Your task to perform on an android device: Open Google Chrome and click the shortcut for Amazon.com Image 0: 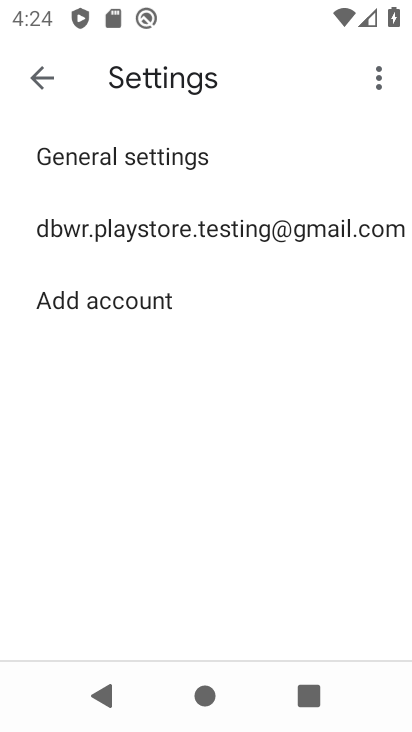
Step 0: press home button
Your task to perform on an android device: Open Google Chrome and click the shortcut for Amazon.com Image 1: 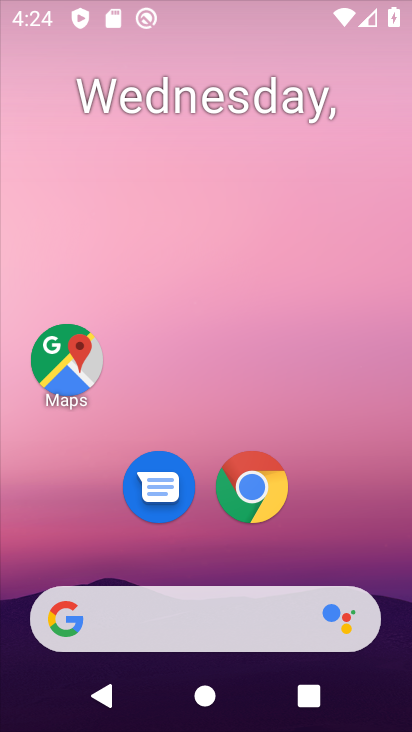
Step 1: drag from (352, 548) to (361, 65)
Your task to perform on an android device: Open Google Chrome and click the shortcut for Amazon.com Image 2: 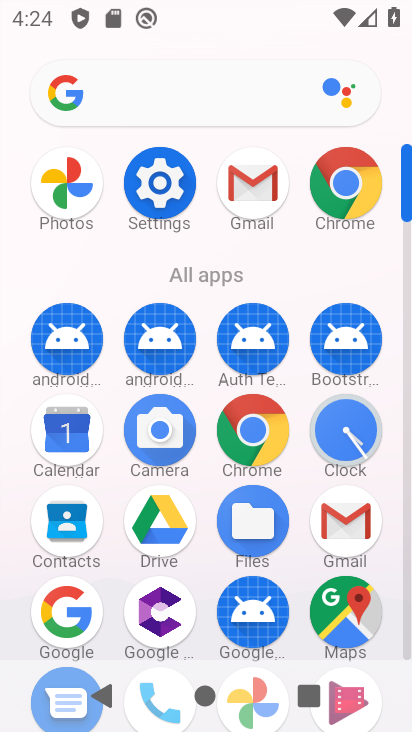
Step 2: click (348, 180)
Your task to perform on an android device: Open Google Chrome and click the shortcut for Amazon.com Image 3: 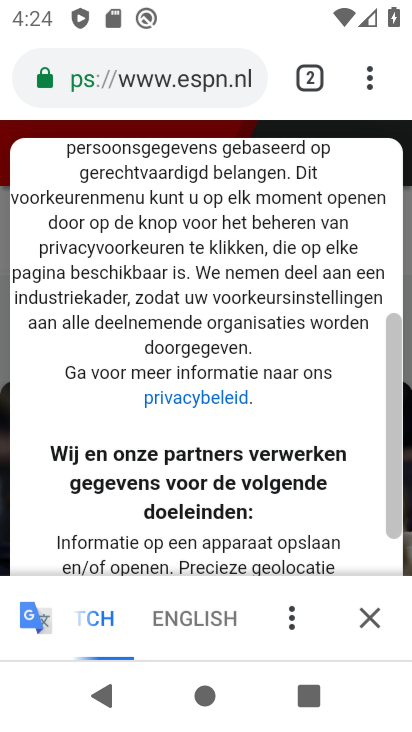
Step 3: drag from (366, 81) to (186, 163)
Your task to perform on an android device: Open Google Chrome and click the shortcut for Amazon.com Image 4: 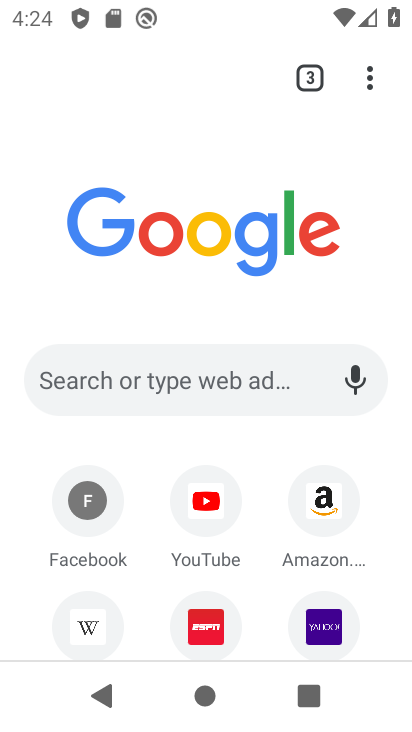
Step 4: click (322, 494)
Your task to perform on an android device: Open Google Chrome and click the shortcut for Amazon.com Image 5: 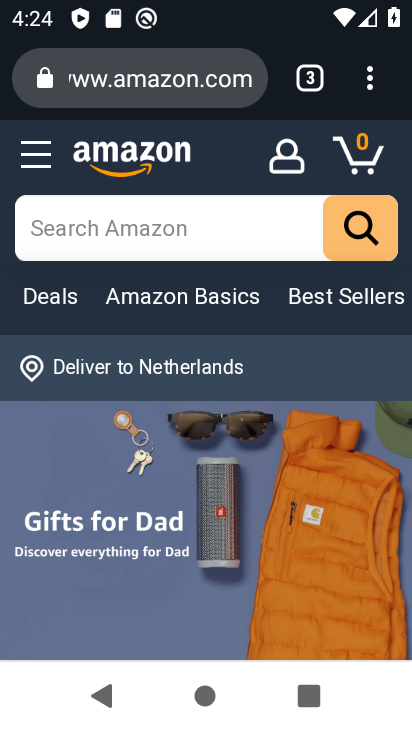
Step 5: task complete